Your task to perform on an android device: turn off priority inbox in the gmail app Image 0: 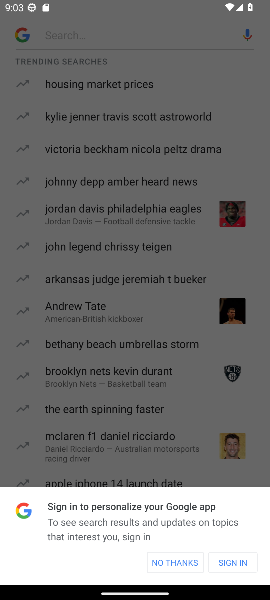
Step 0: press home button
Your task to perform on an android device: turn off priority inbox in the gmail app Image 1: 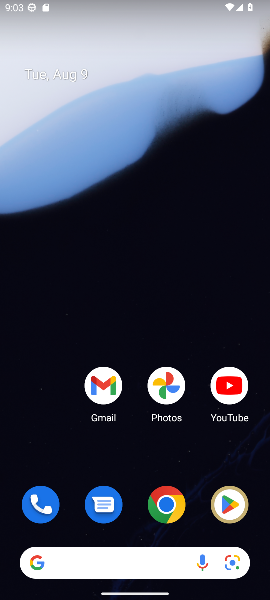
Step 1: click (105, 393)
Your task to perform on an android device: turn off priority inbox in the gmail app Image 2: 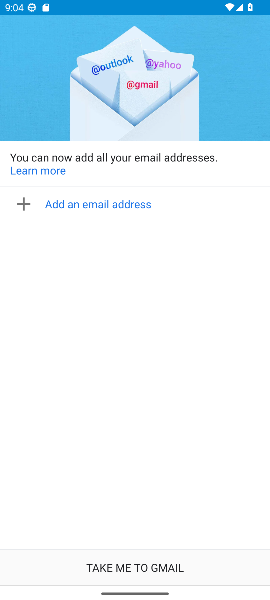
Step 2: click (148, 563)
Your task to perform on an android device: turn off priority inbox in the gmail app Image 3: 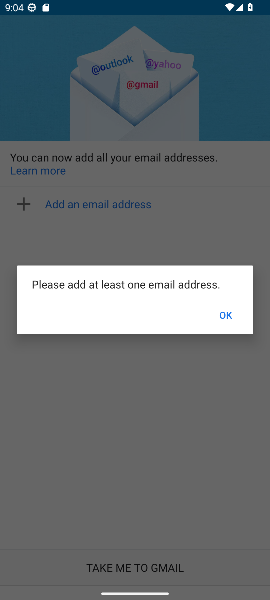
Step 3: click (222, 309)
Your task to perform on an android device: turn off priority inbox in the gmail app Image 4: 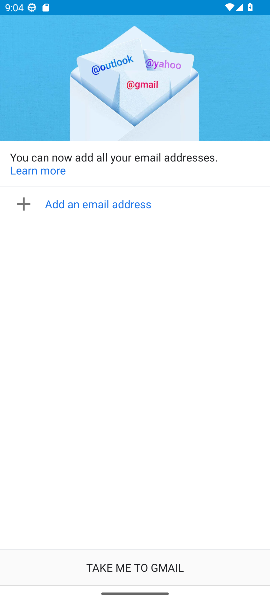
Step 4: task complete